Your task to perform on an android device: add a label to a message in the gmail app Image 0: 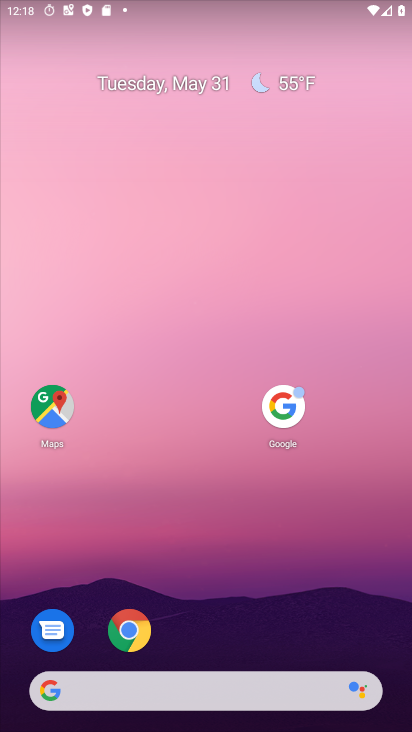
Step 0: press home button
Your task to perform on an android device: add a label to a message in the gmail app Image 1: 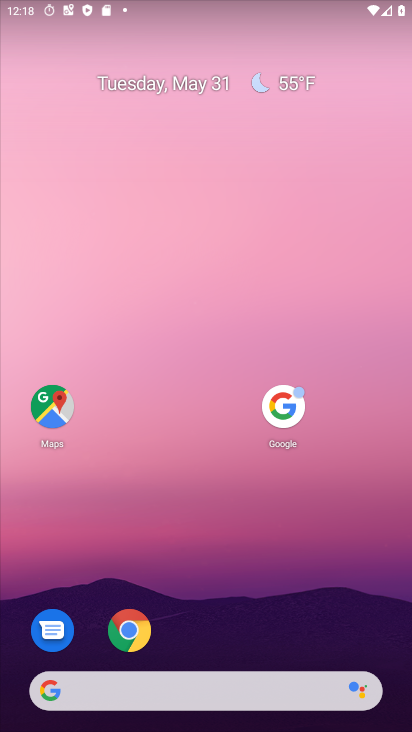
Step 1: drag from (178, 693) to (293, 209)
Your task to perform on an android device: add a label to a message in the gmail app Image 2: 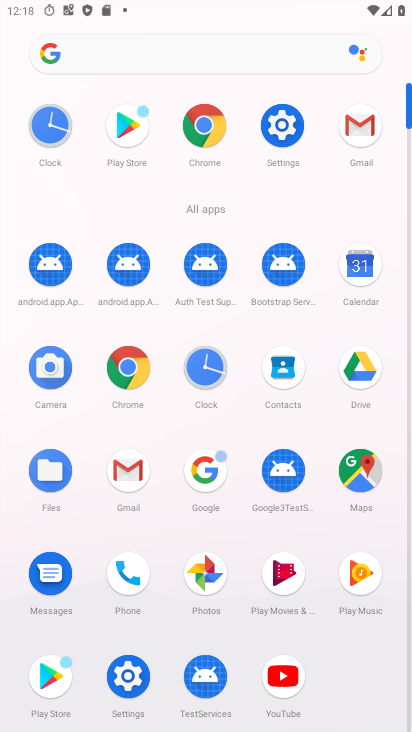
Step 2: click (361, 128)
Your task to perform on an android device: add a label to a message in the gmail app Image 3: 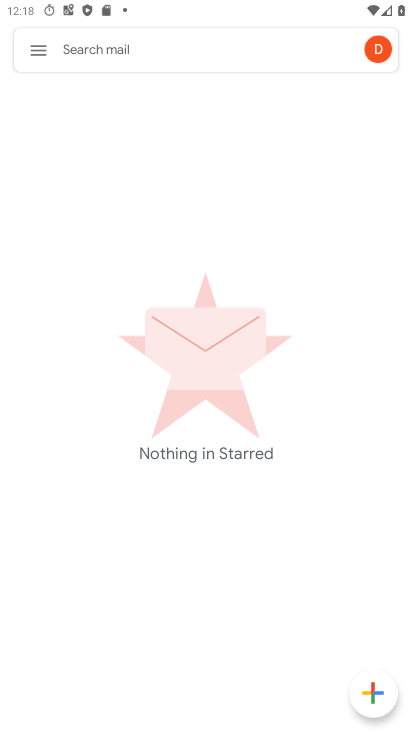
Step 3: task complete